Your task to perform on an android device: Open maps Image 0: 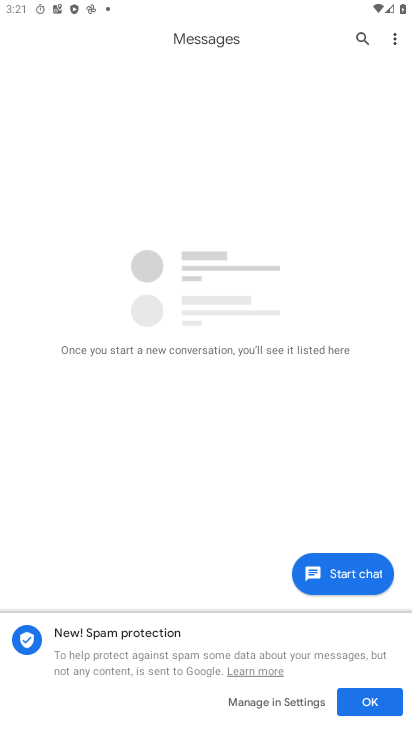
Step 0: press home button
Your task to perform on an android device: Open maps Image 1: 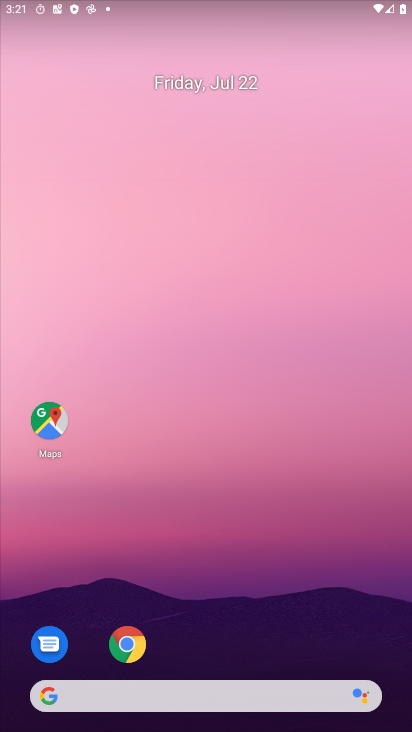
Step 1: drag from (262, 570) to (278, 177)
Your task to perform on an android device: Open maps Image 2: 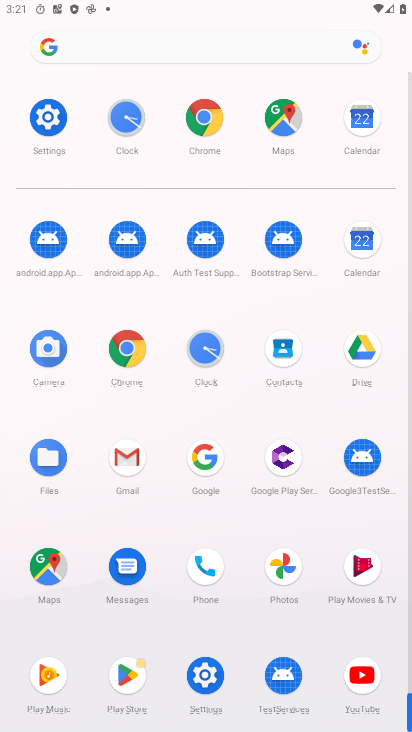
Step 2: drag from (243, 534) to (272, 375)
Your task to perform on an android device: Open maps Image 3: 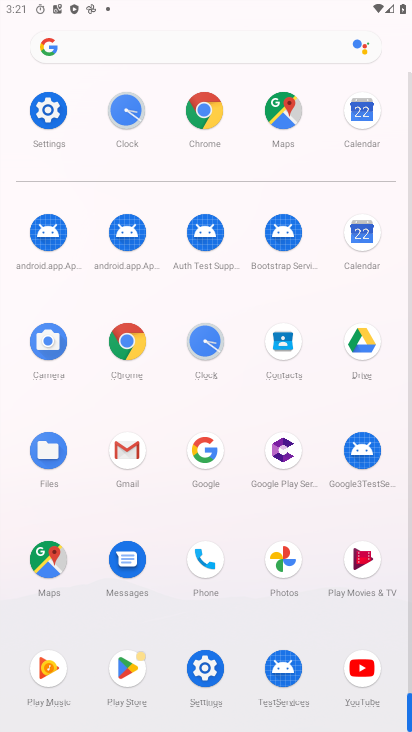
Step 3: click (49, 570)
Your task to perform on an android device: Open maps Image 4: 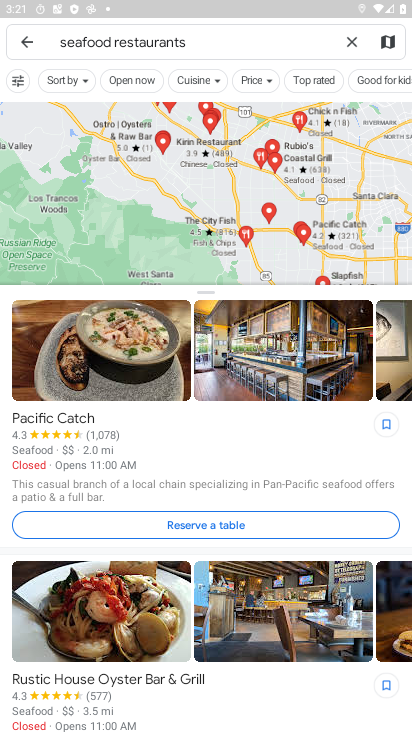
Step 4: task complete